Your task to perform on an android device: open wifi settings Image 0: 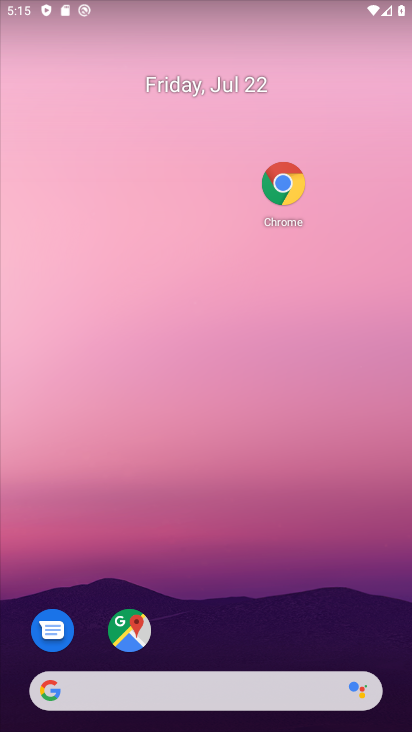
Step 0: drag from (180, 636) to (252, 135)
Your task to perform on an android device: open wifi settings Image 1: 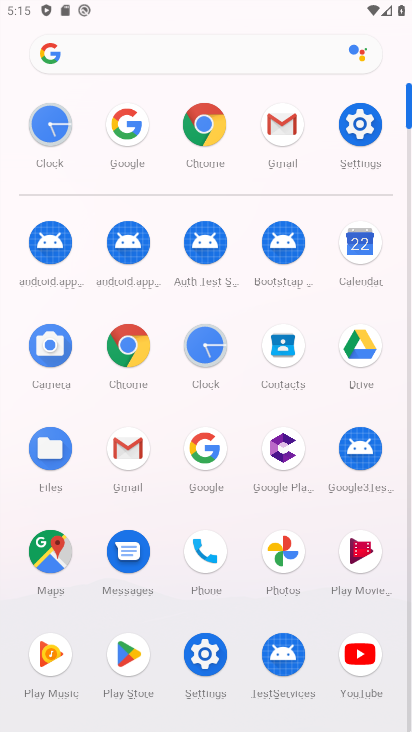
Step 1: click (360, 139)
Your task to perform on an android device: open wifi settings Image 2: 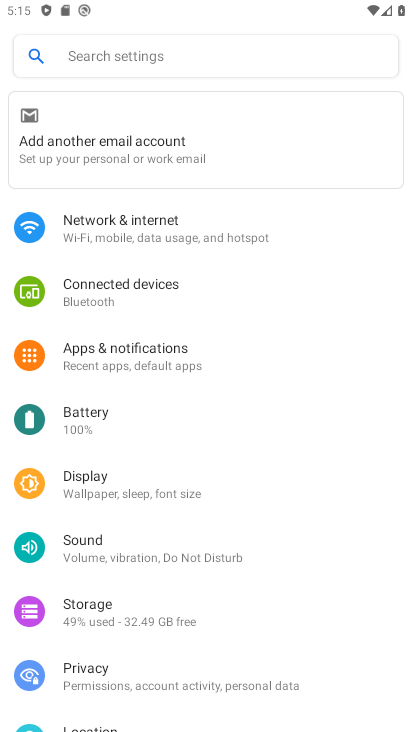
Step 2: click (115, 225)
Your task to perform on an android device: open wifi settings Image 3: 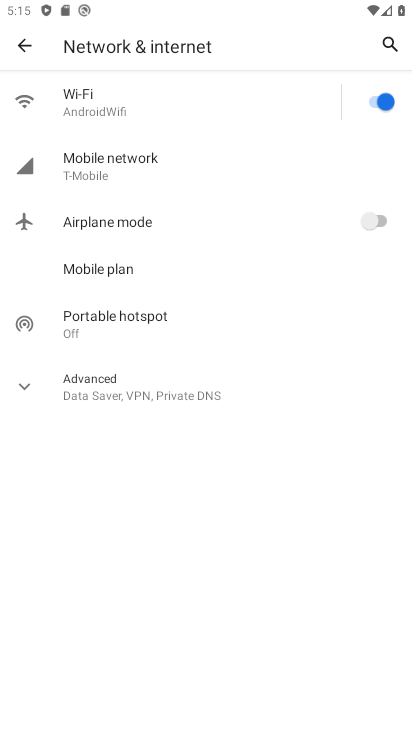
Step 3: task complete